Your task to perform on an android device: Turn off the flashlight Image 0: 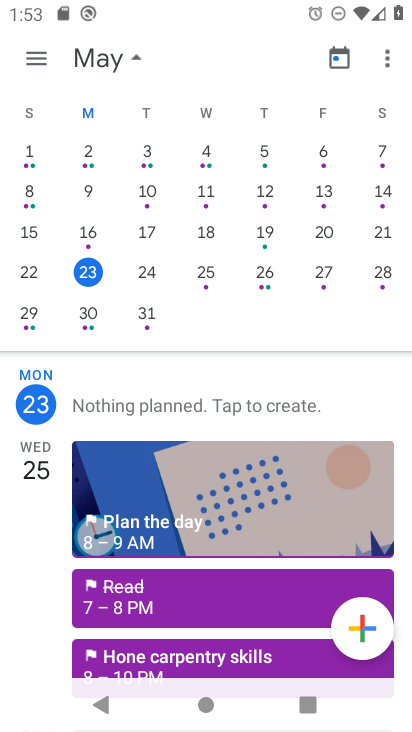
Step 0: drag from (318, 16) to (273, 488)
Your task to perform on an android device: Turn off the flashlight Image 1: 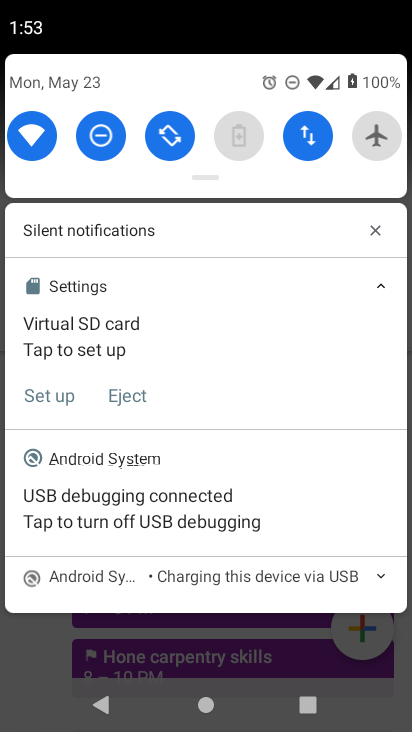
Step 1: task complete